Your task to perform on an android device: refresh tabs in the chrome app Image 0: 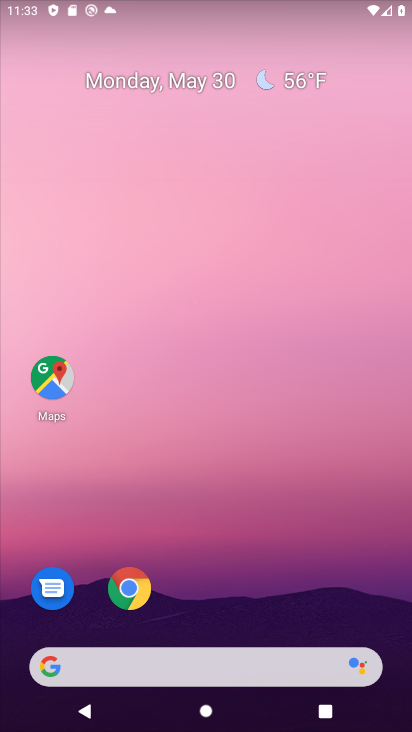
Step 0: click (131, 593)
Your task to perform on an android device: refresh tabs in the chrome app Image 1: 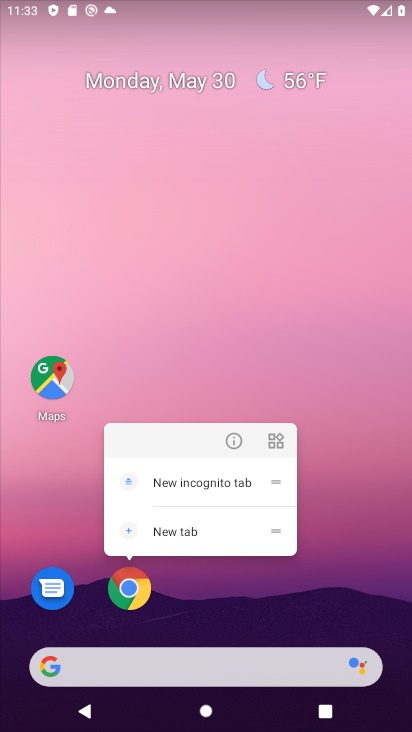
Step 1: click (132, 596)
Your task to perform on an android device: refresh tabs in the chrome app Image 2: 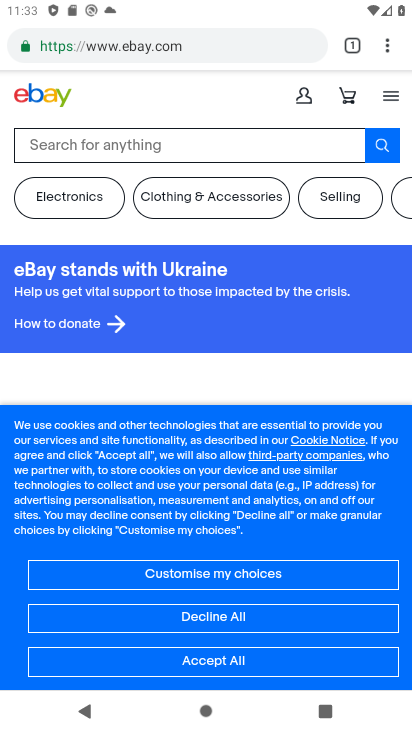
Step 2: click (383, 43)
Your task to perform on an android device: refresh tabs in the chrome app Image 3: 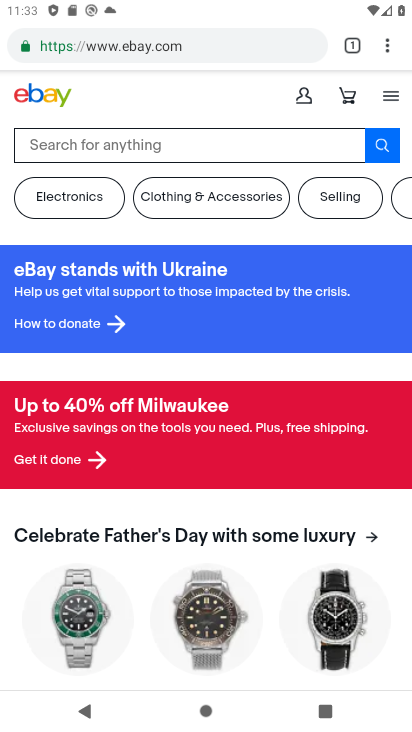
Step 3: click (386, 41)
Your task to perform on an android device: refresh tabs in the chrome app Image 4: 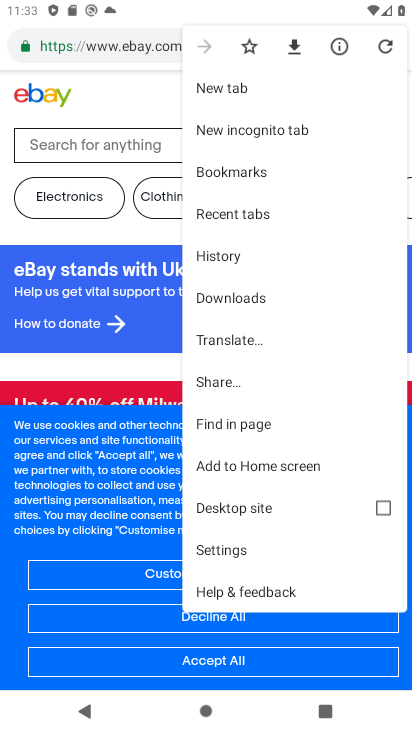
Step 4: click (382, 49)
Your task to perform on an android device: refresh tabs in the chrome app Image 5: 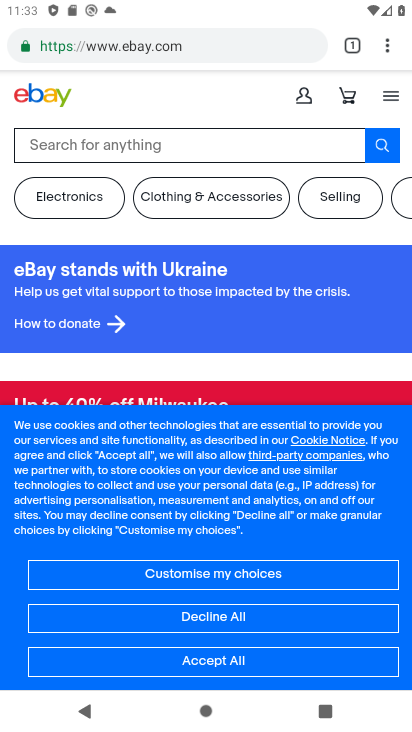
Step 5: task complete